Your task to perform on an android device: Go to Wikipedia Image 0: 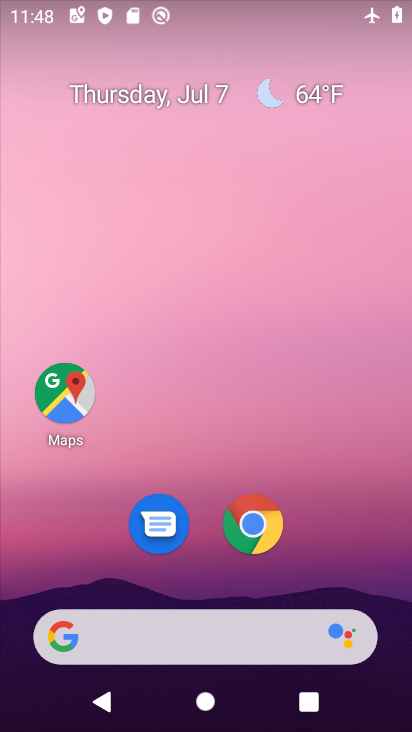
Step 0: drag from (329, 530) to (356, 27)
Your task to perform on an android device: Go to Wikipedia Image 1: 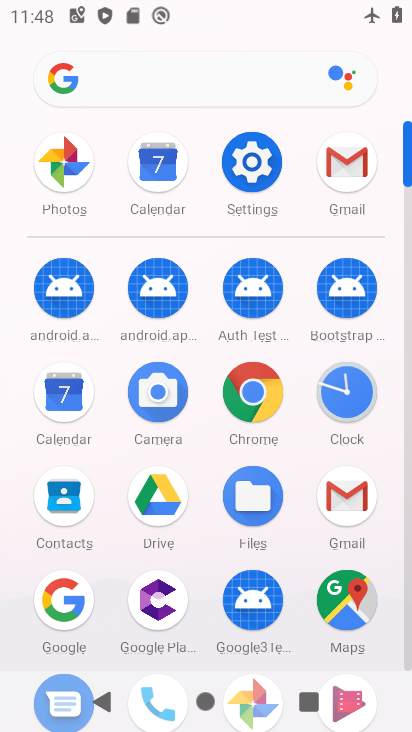
Step 1: click (259, 396)
Your task to perform on an android device: Go to Wikipedia Image 2: 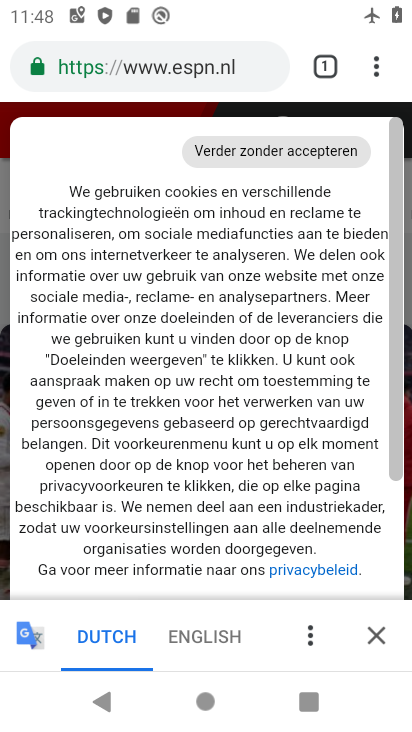
Step 2: click (374, 66)
Your task to perform on an android device: Go to Wikipedia Image 3: 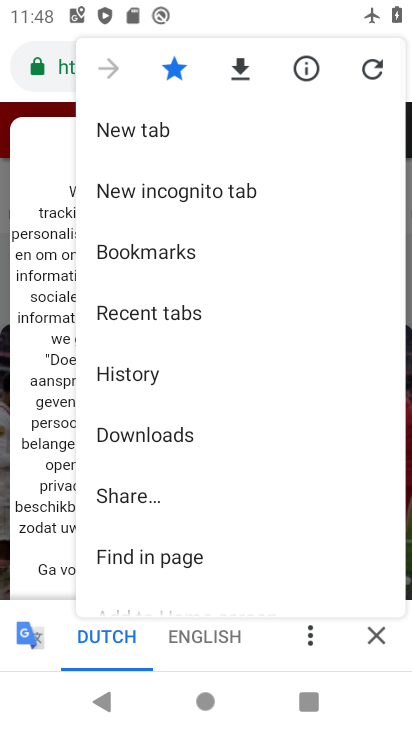
Step 3: click (269, 126)
Your task to perform on an android device: Go to Wikipedia Image 4: 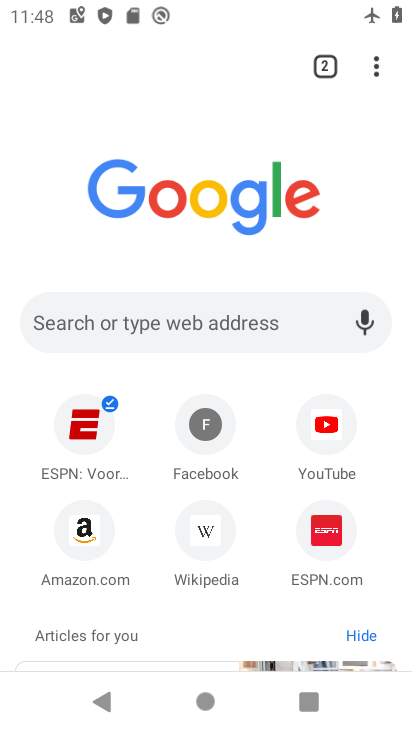
Step 4: click (204, 525)
Your task to perform on an android device: Go to Wikipedia Image 5: 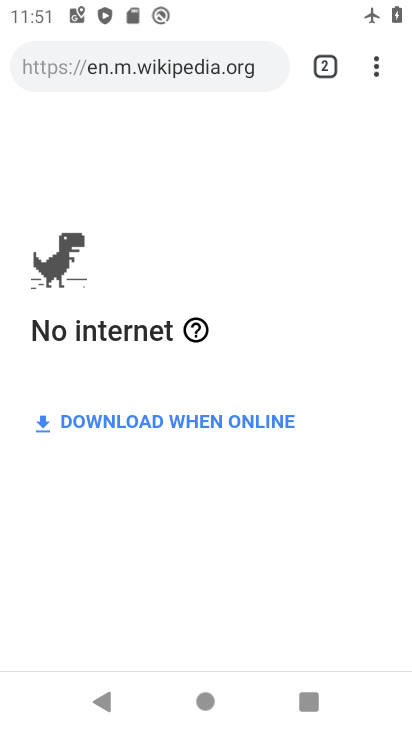
Step 5: task complete